Your task to perform on an android device: Open Google Chrome Image 0: 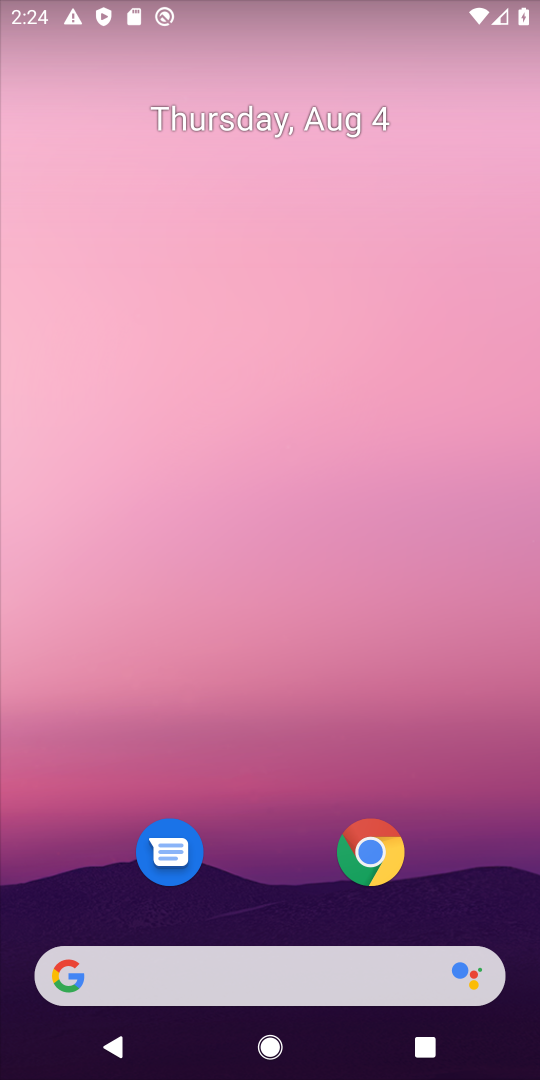
Step 0: click (375, 857)
Your task to perform on an android device: Open Google Chrome Image 1: 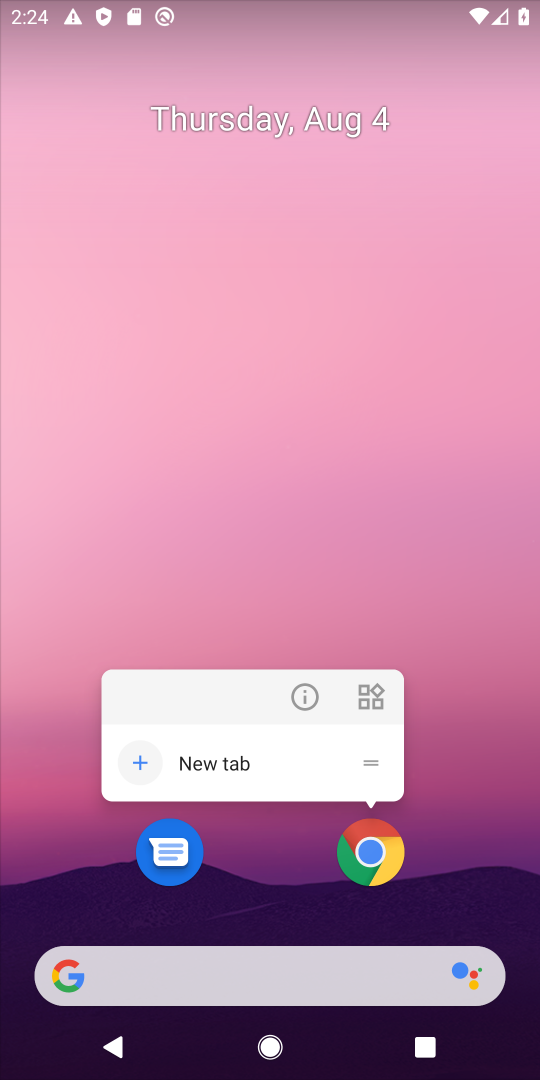
Step 1: click (375, 857)
Your task to perform on an android device: Open Google Chrome Image 2: 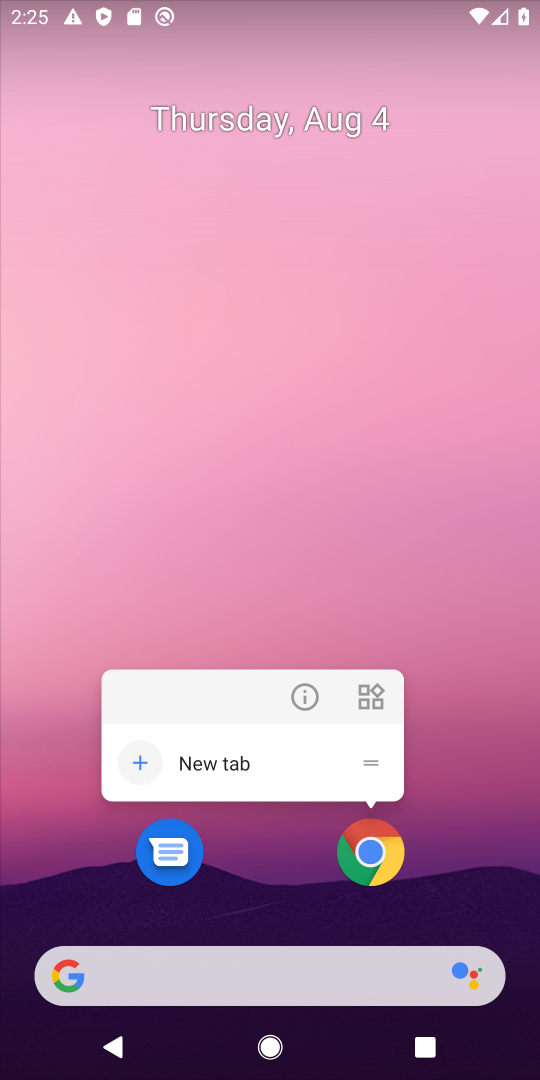
Step 2: click (373, 874)
Your task to perform on an android device: Open Google Chrome Image 3: 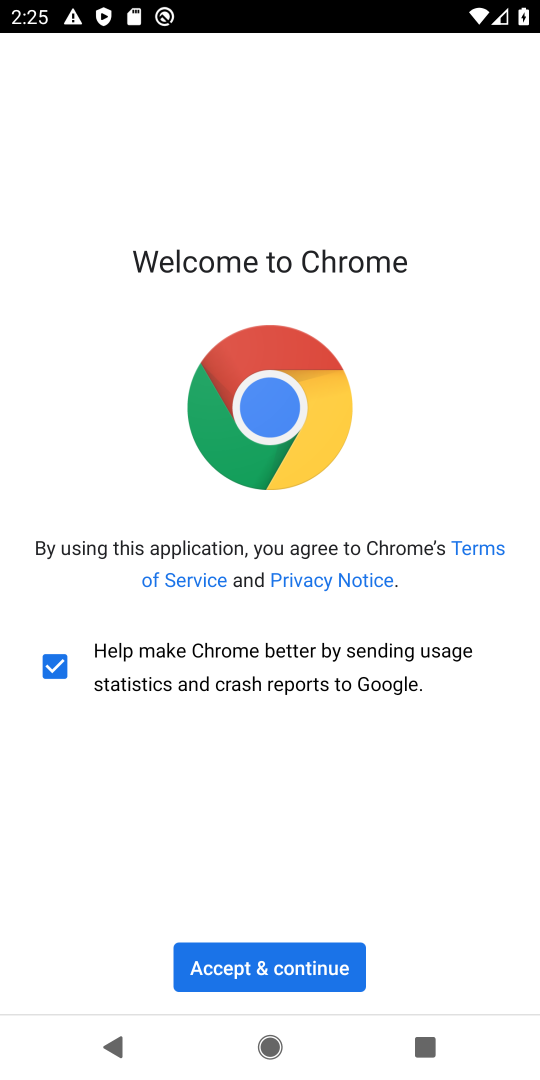
Step 3: click (256, 970)
Your task to perform on an android device: Open Google Chrome Image 4: 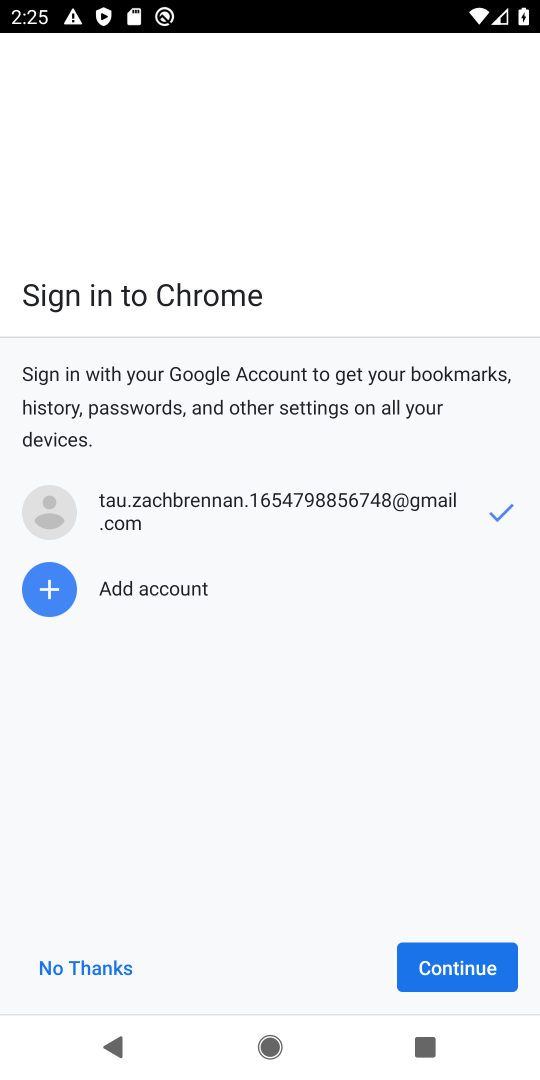
Step 4: click (483, 966)
Your task to perform on an android device: Open Google Chrome Image 5: 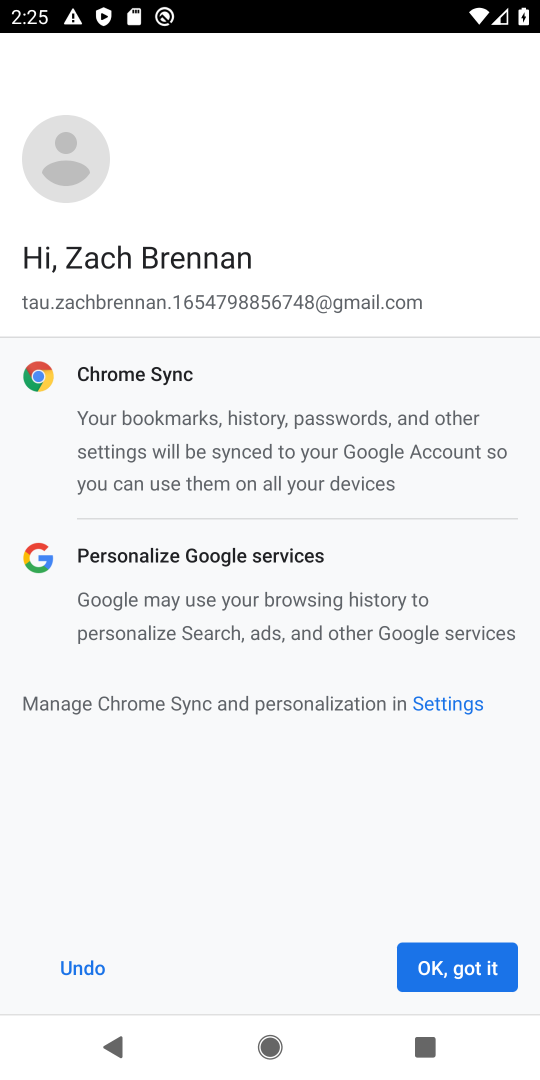
Step 5: click (483, 966)
Your task to perform on an android device: Open Google Chrome Image 6: 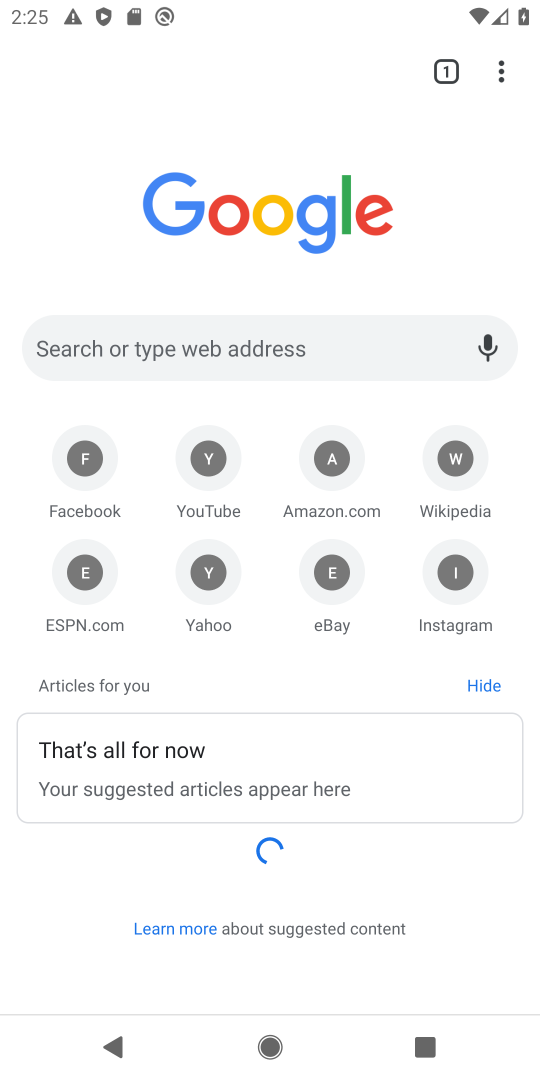
Step 6: task complete